Your task to perform on an android device: Check the weather Image 0: 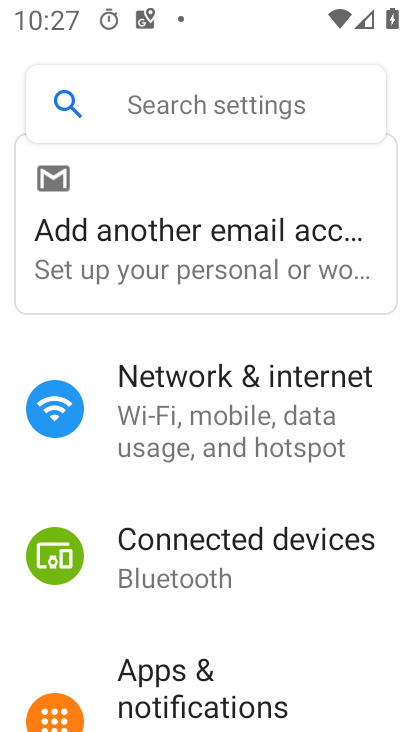
Step 0: press home button
Your task to perform on an android device: Check the weather Image 1: 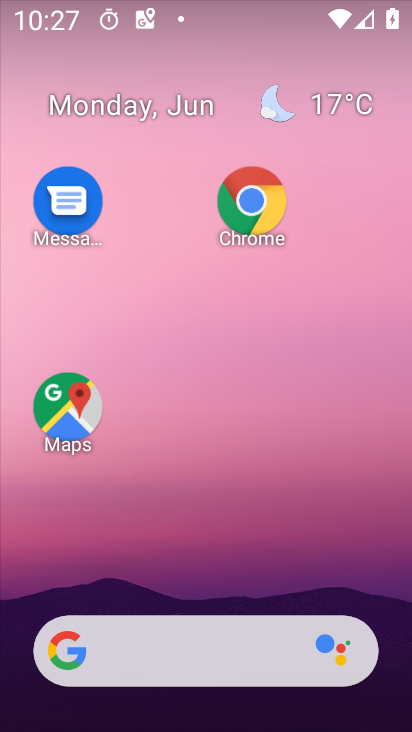
Step 1: click (238, 624)
Your task to perform on an android device: Check the weather Image 2: 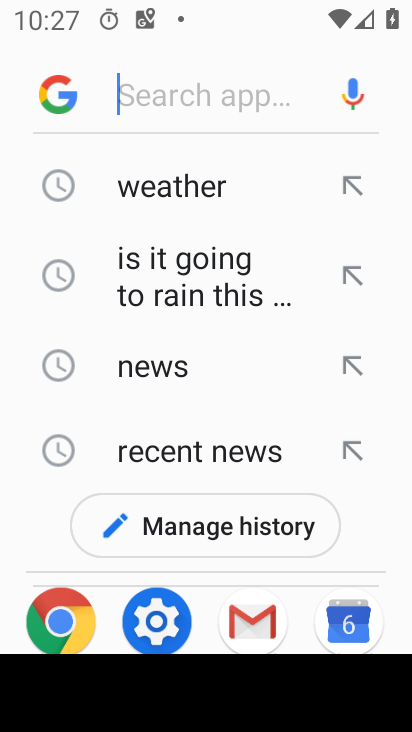
Step 2: click (140, 191)
Your task to perform on an android device: Check the weather Image 3: 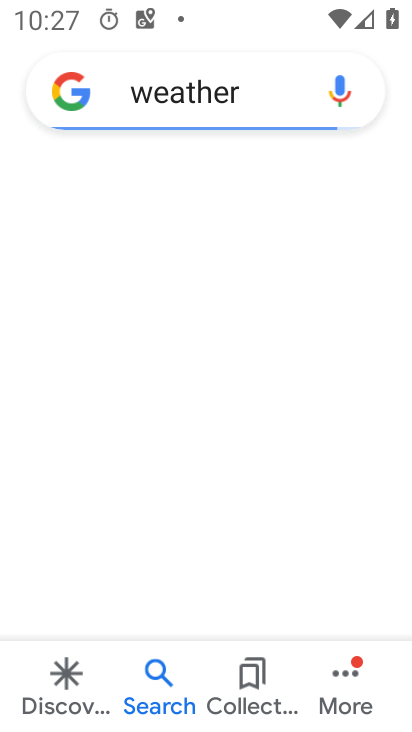
Step 3: task complete